Your task to perform on an android device: turn on wifi Image 0: 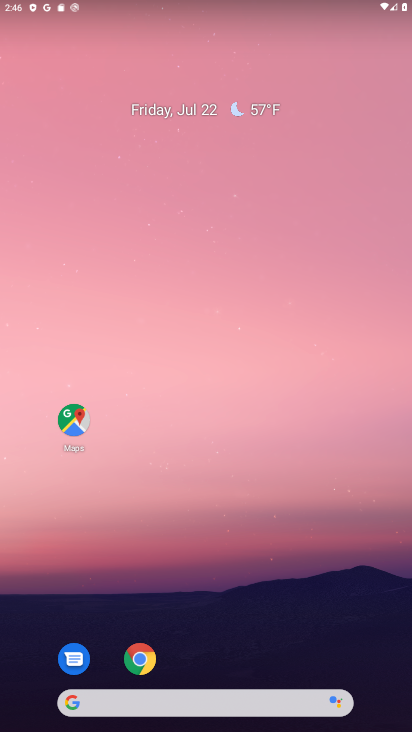
Step 0: drag from (212, 649) to (255, 55)
Your task to perform on an android device: turn on wifi Image 1: 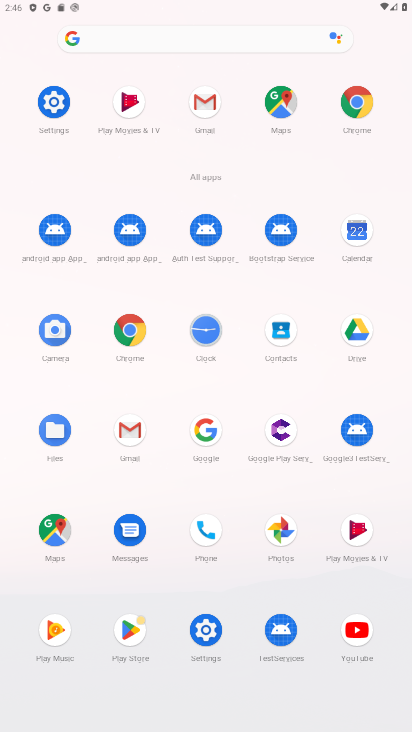
Step 1: click (61, 111)
Your task to perform on an android device: turn on wifi Image 2: 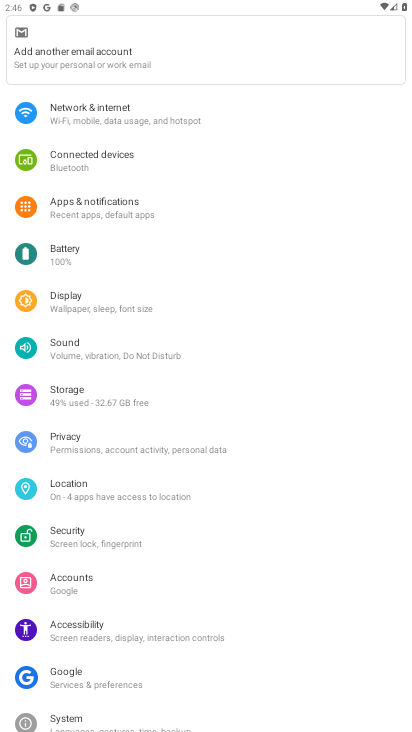
Step 2: click (122, 123)
Your task to perform on an android device: turn on wifi Image 3: 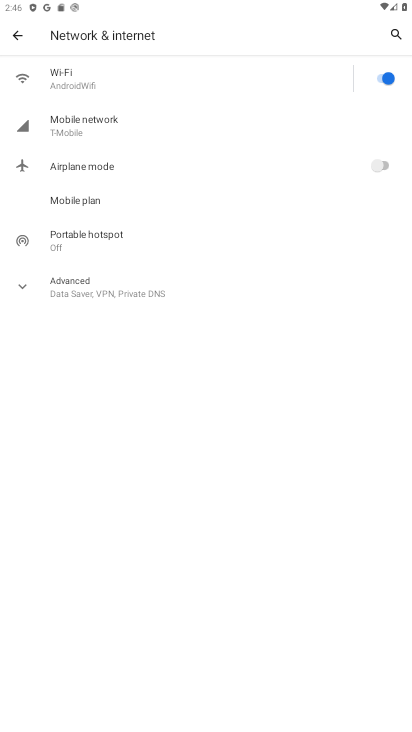
Step 3: task complete